Your task to perform on an android device: see creations saved in the google photos Image 0: 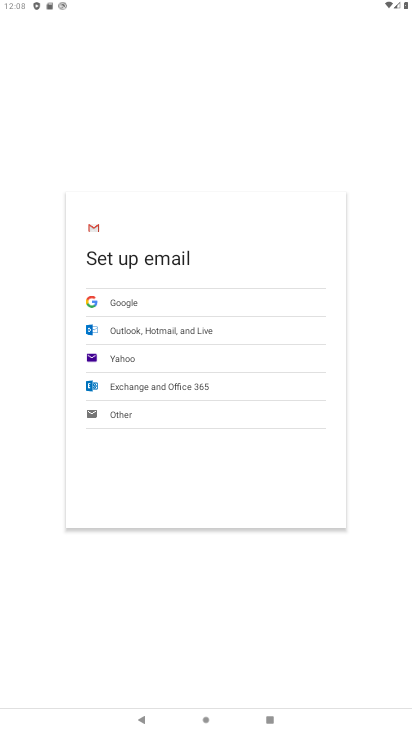
Step 0: press home button
Your task to perform on an android device: see creations saved in the google photos Image 1: 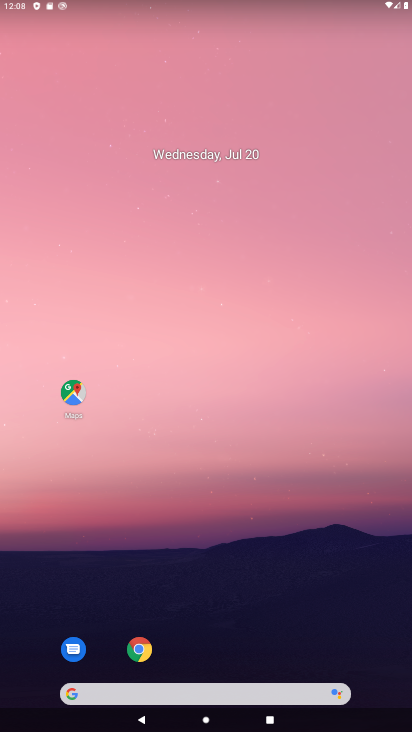
Step 1: drag from (249, 703) to (201, 113)
Your task to perform on an android device: see creations saved in the google photos Image 2: 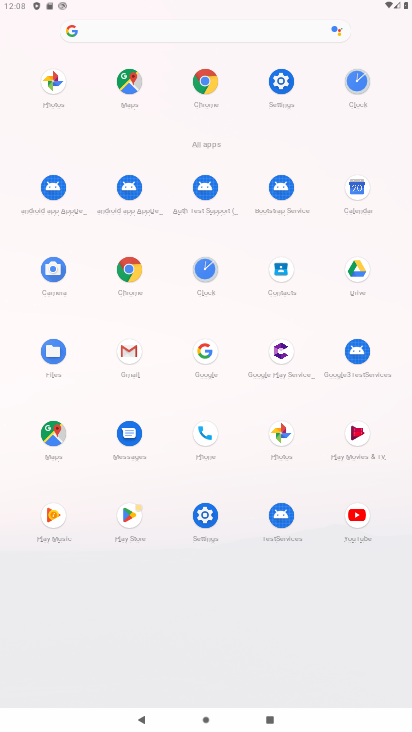
Step 2: click (288, 435)
Your task to perform on an android device: see creations saved in the google photos Image 3: 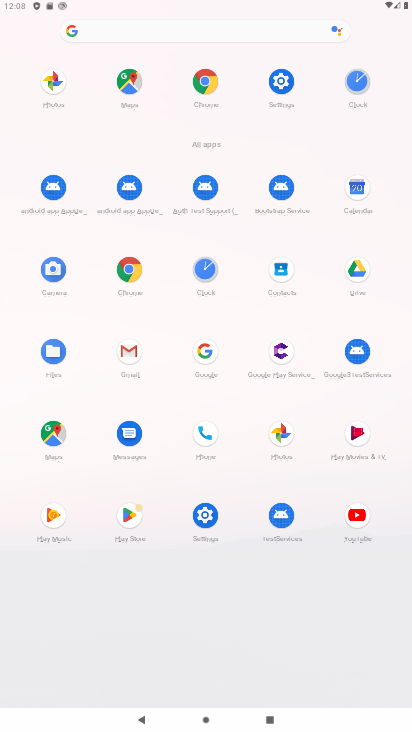
Step 3: click (288, 435)
Your task to perform on an android device: see creations saved in the google photos Image 4: 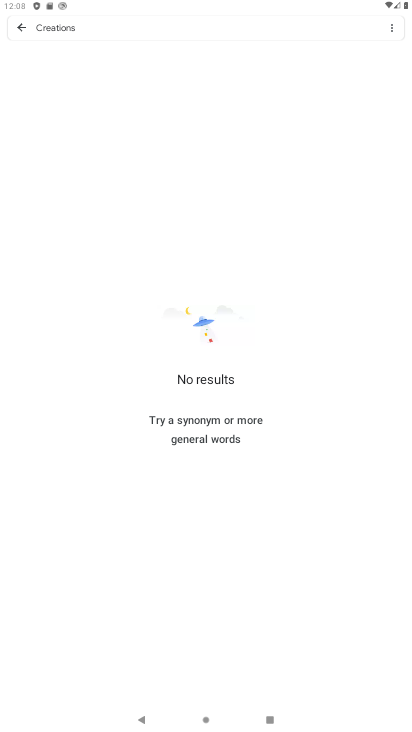
Step 4: task complete